Your task to perform on an android device: Do I have any events today? Image 0: 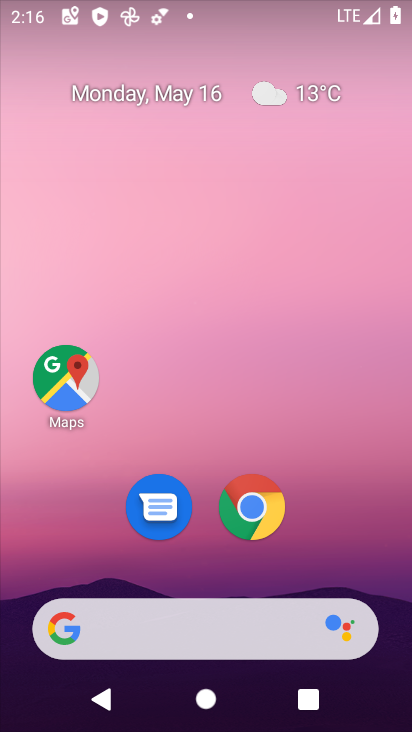
Step 0: click (159, 84)
Your task to perform on an android device: Do I have any events today? Image 1: 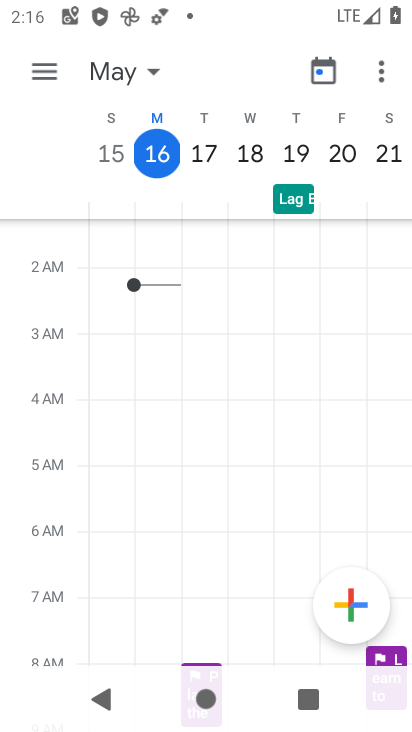
Step 1: task complete